Your task to perform on an android device: Go to notification settings Image 0: 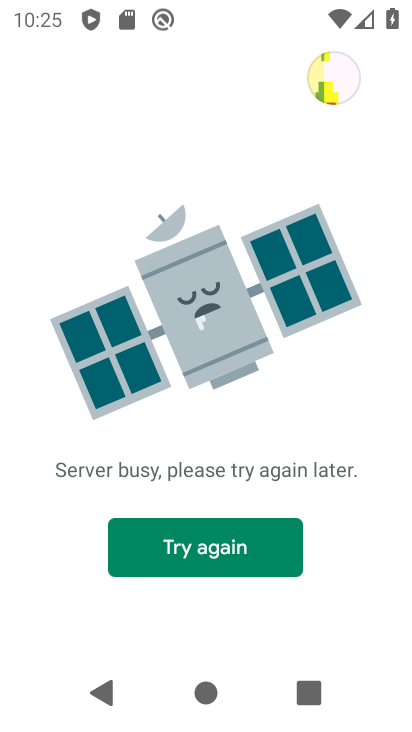
Step 0: press home button
Your task to perform on an android device: Go to notification settings Image 1: 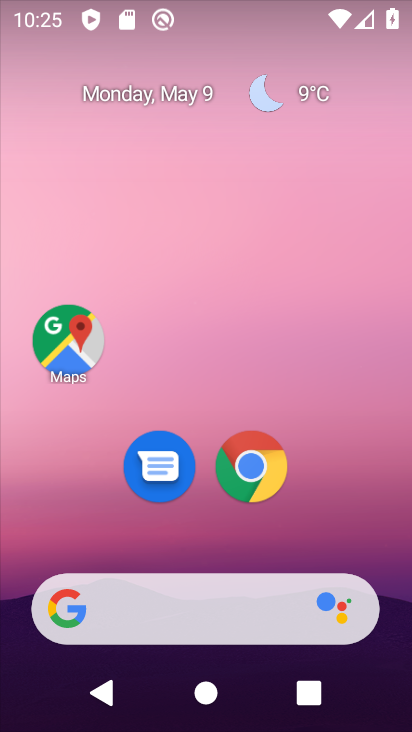
Step 1: drag from (356, 509) to (314, 178)
Your task to perform on an android device: Go to notification settings Image 2: 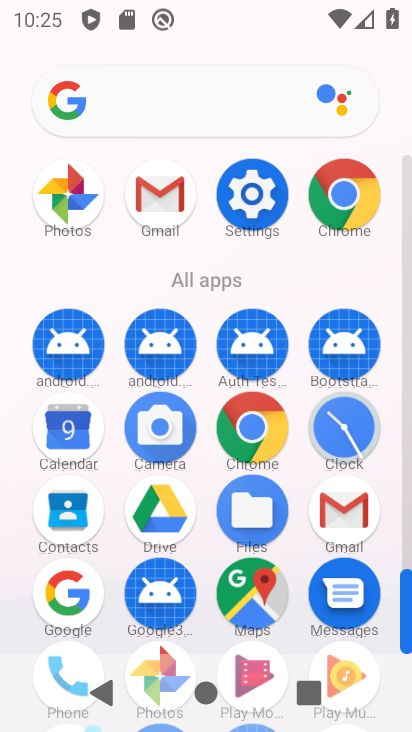
Step 2: click (252, 200)
Your task to perform on an android device: Go to notification settings Image 3: 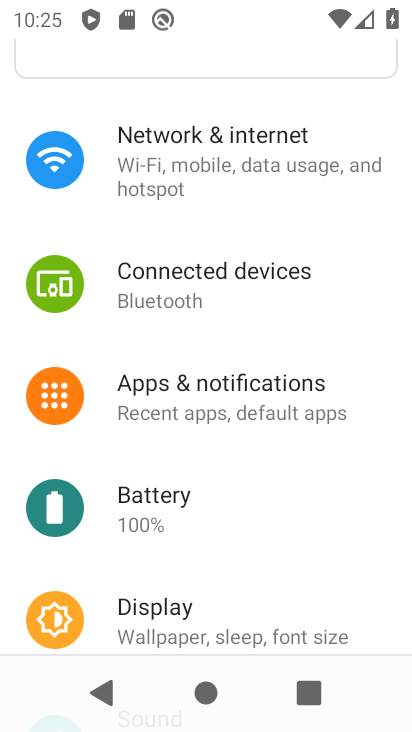
Step 3: click (225, 416)
Your task to perform on an android device: Go to notification settings Image 4: 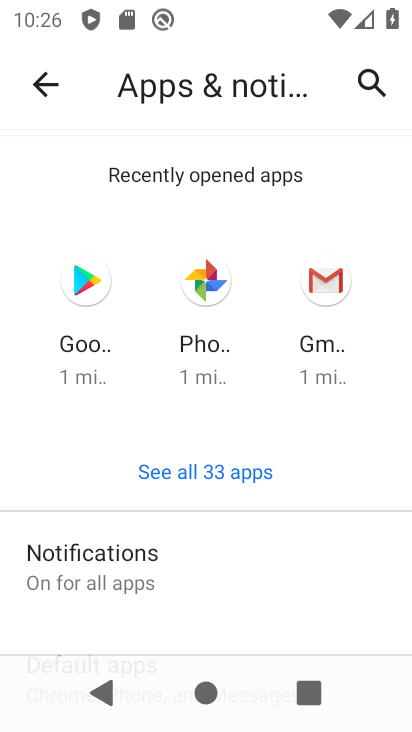
Step 4: click (217, 559)
Your task to perform on an android device: Go to notification settings Image 5: 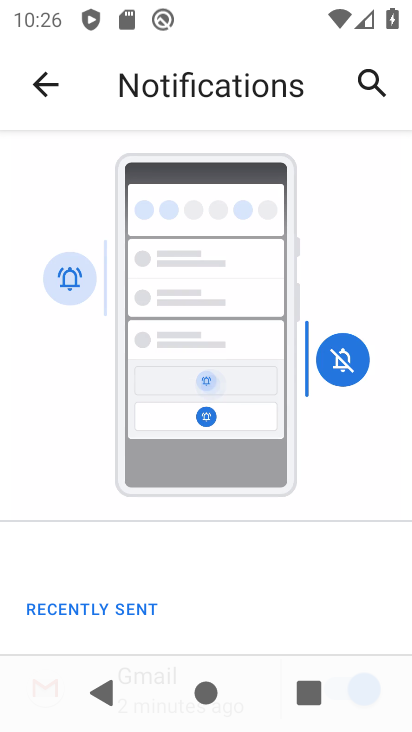
Step 5: task complete